Your task to perform on an android device: Open the calendar app, open the side menu, and click the "Day" option Image 0: 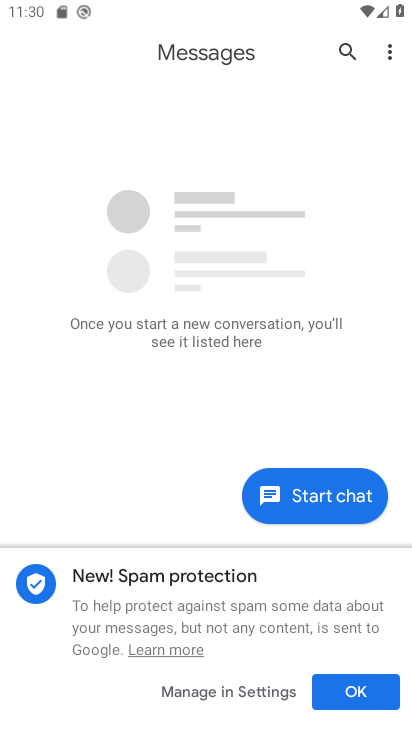
Step 0: drag from (270, 460) to (294, 225)
Your task to perform on an android device: Open the calendar app, open the side menu, and click the "Day" option Image 1: 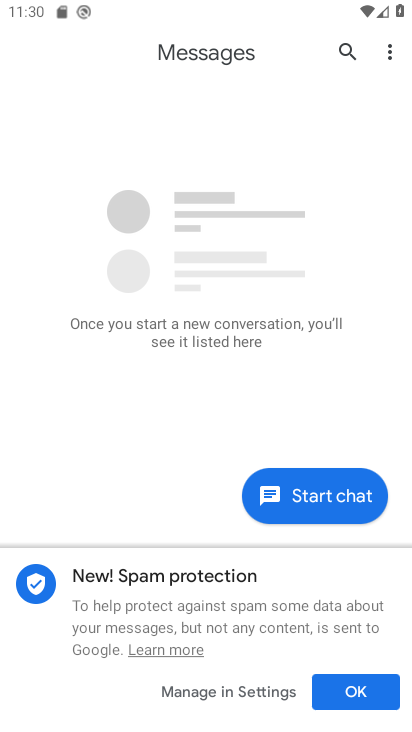
Step 1: press home button
Your task to perform on an android device: Open the calendar app, open the side menu, and click the "Day" option Image 2: 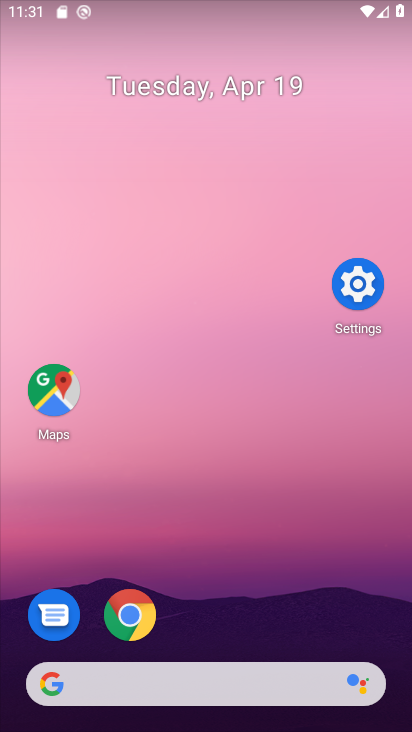
Step 2: drag from (217, 422) to (266, 133)
Your task to perform on an android device: Open the calendar app, open the side menu, and click the "Day" option Image 3: 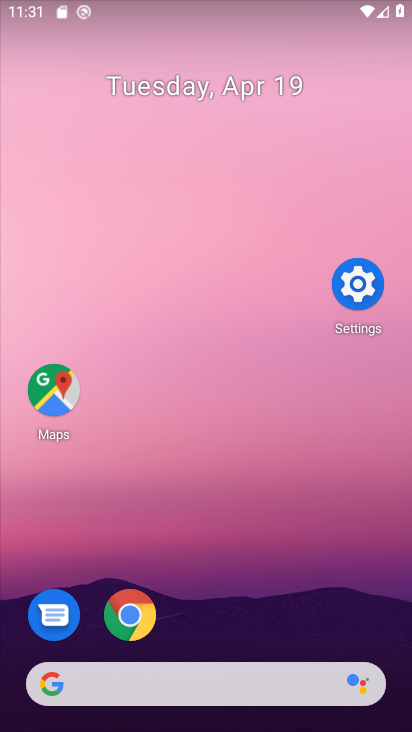
Step 3: drag from (184, 633) to (287, 47)
Your task to perform on an android device: Open the calendar app, open the side menu, and click the "Day" option Image 4: 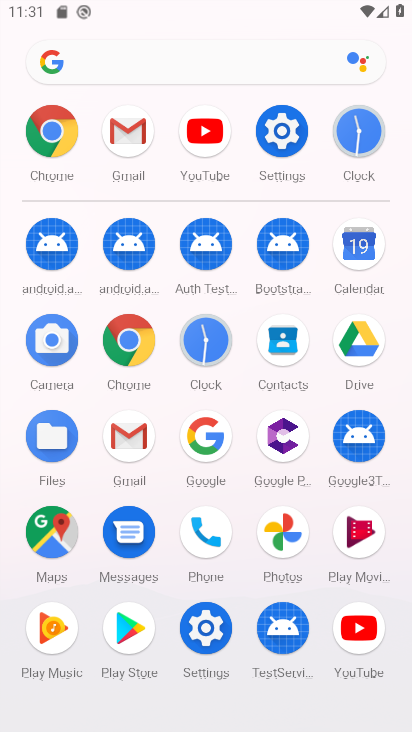
Step 4: click (357, 248)
Your task to perform on an android device: Open the calendar app, open the side menu, and click the "Day" option Image 5: 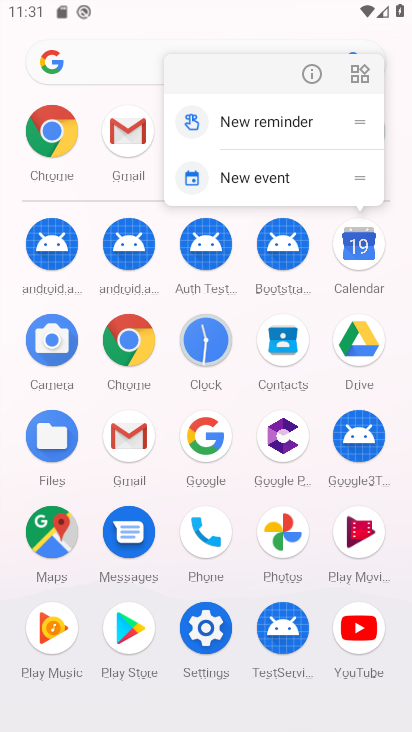
Step 5: click (315, 73)
Your task to perform on an android device: Open the calendar app, open the side menu, and click the "Day" option Image 6: 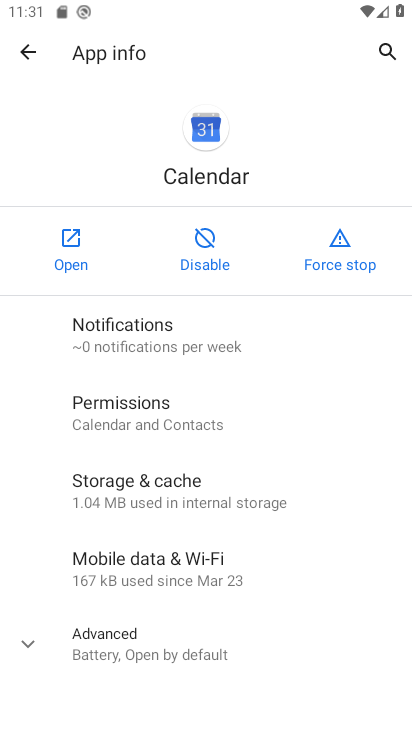
Step 6: click (72, 249)
Your task to perform on an android device: Open the calendar app, open the side menu, and click the "Day" option Image 7: 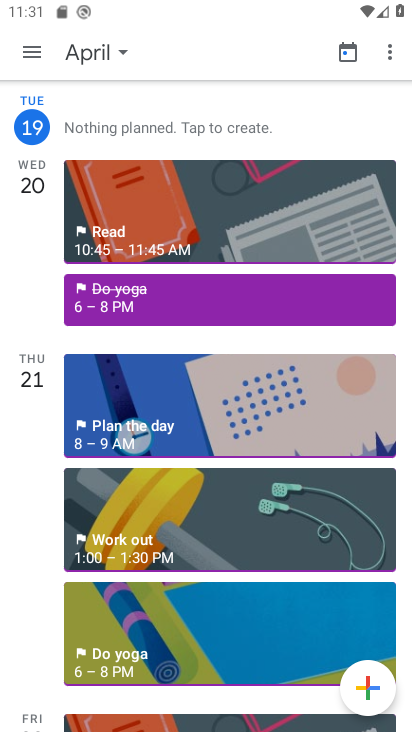
Step 7: drag from (232, 383) to (287, 246)
Your task to perform on an android device: Open the calendar app, open the side menu, and click the "Day" option Image 8: 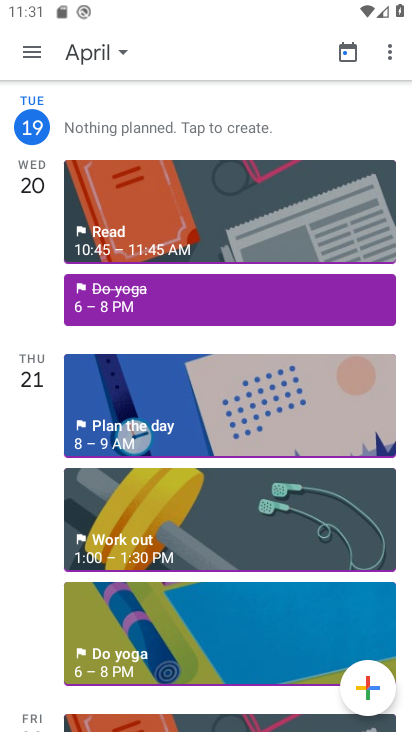
Step 8: click (31, 52)
Your task to perform on an android device: Open the calendar app, open the side menu, and click the "Day" option Image 9: 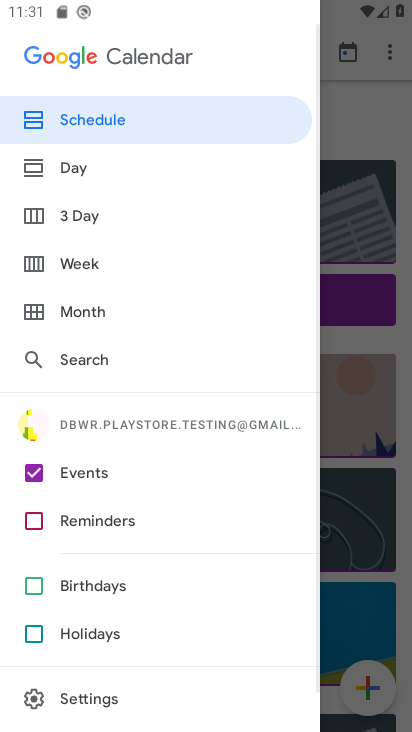
Step 9: click (99, 179)
Your task to perform on an android device: Open the calendar app, open the side menu, and click the "Day" option Image 10: 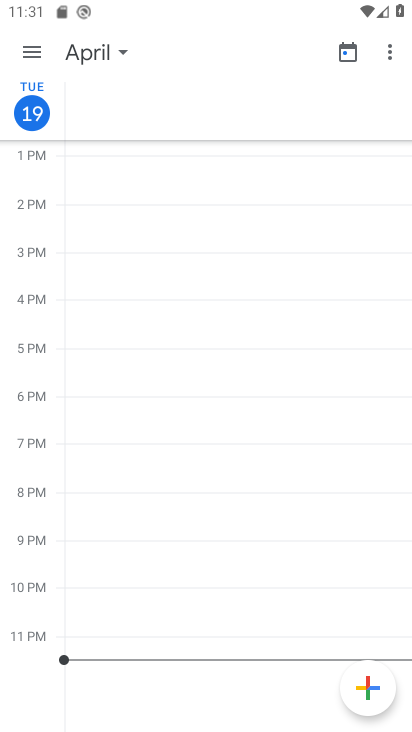
Step 10: task complete